Your task to perform on an android device: Open the Play Movies app and select the watchlist tab. Image 0: 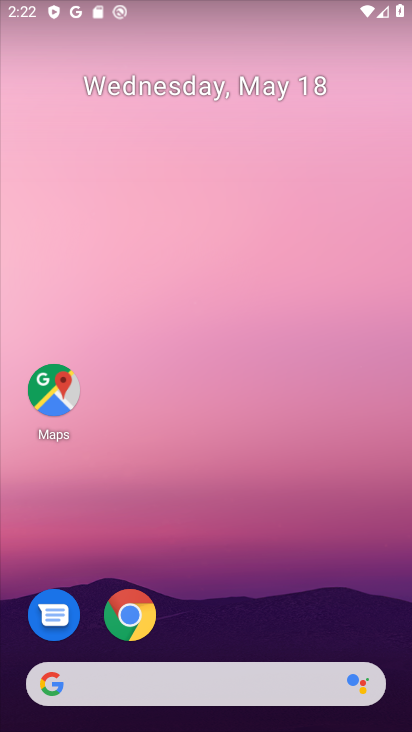
Step 0: drag from (253, 631) to (272, 274)
Your task to perform on an android device: Open the Play Movies app and select the watchlist tab. Image 1: 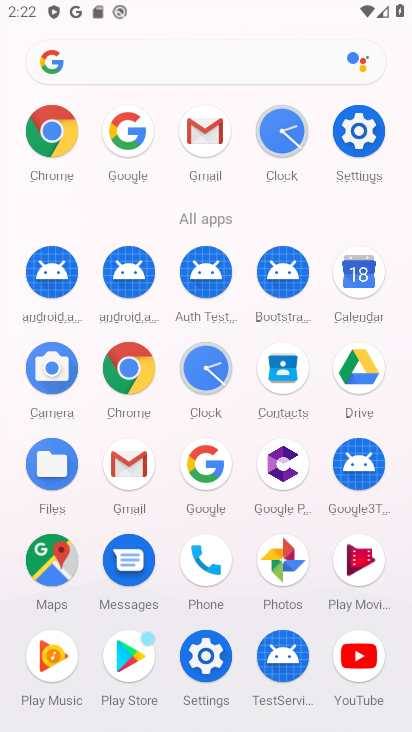
Step 1: click (362, 578)
Your task to perform on an android device: Open the Play Movies app and select the watchlist tab. Image 2: 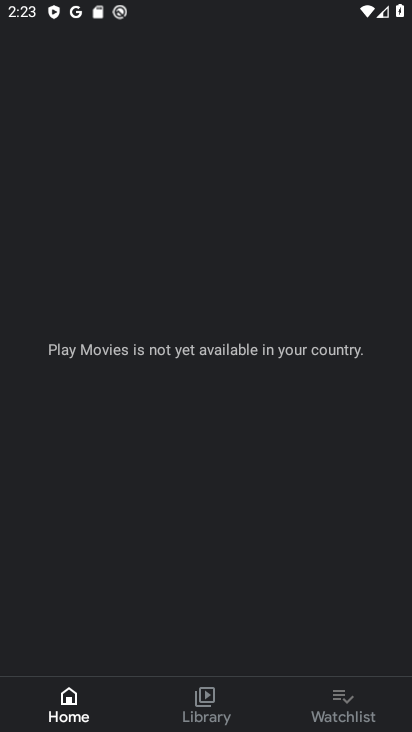
Step 2: task complete